Your task to perform on an android device: move an email to a new category in the gmail app Image 0: 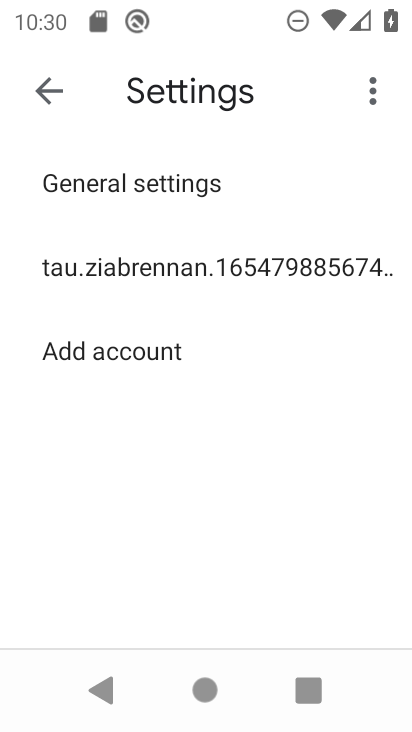
Step 0: press home button
Your task to perform on an android device: move an email to a new category in the gmail app Image 1: 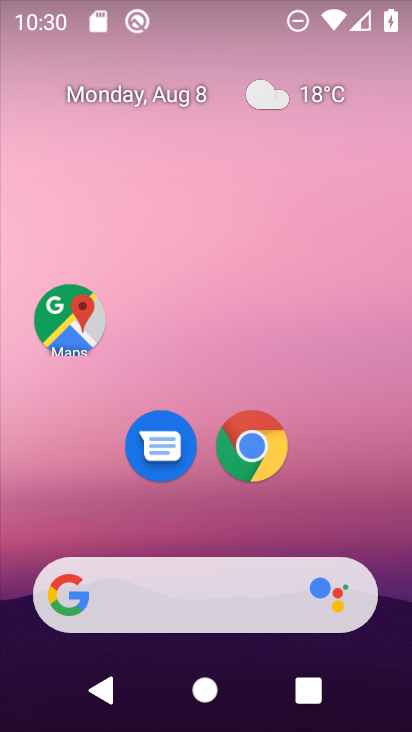
Step 1: drag from (396, 608) to (343, 123)
Your task to perform on an android device: move an email to a new category in the gmail app Image 2: 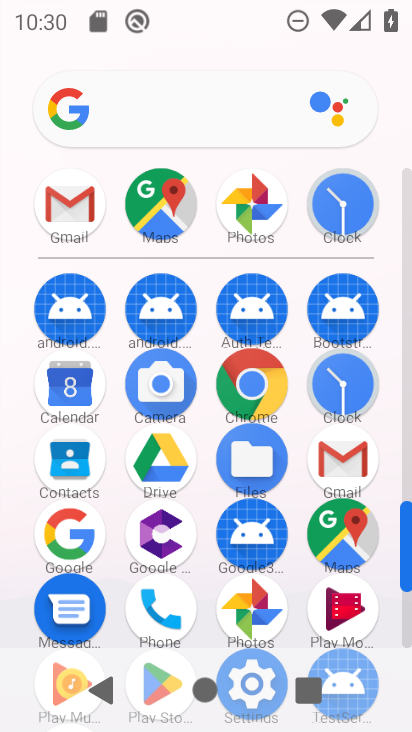
Step 2: click (342, 458)
Your task to perform on an android device: move an email to a new category in the gmail app Image 3: 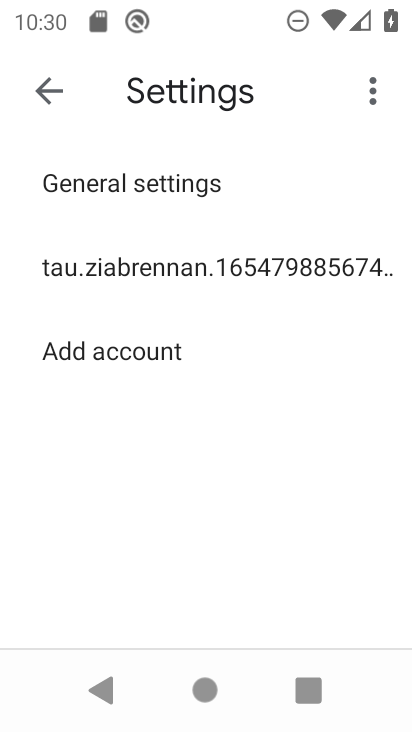
Step 3: press back button
Your task to perform on an android device: move an email to a new category in the gmail app Image 4: 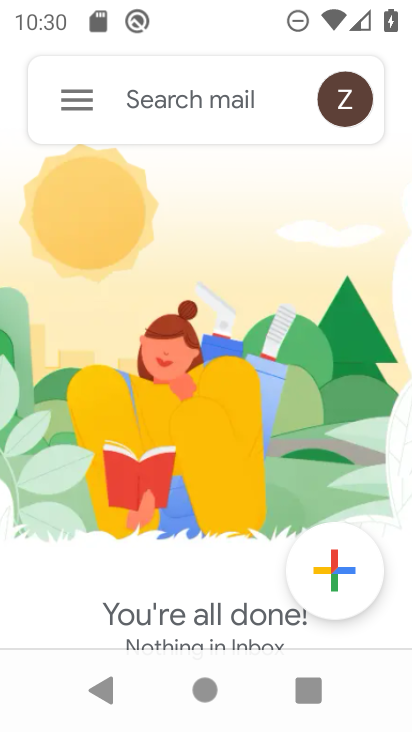
Step 4: click (69, 101)
Your task to perform on an android device: move an email to a new category in the gmail app Image 5: 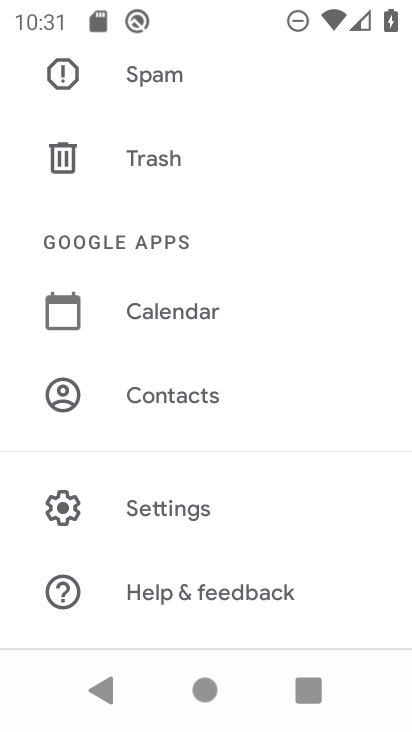
Step 5: drag from (244, 166) to (251, 346)
Your task to perform on an android device: move an email to a new category in the gmail app Image 6: 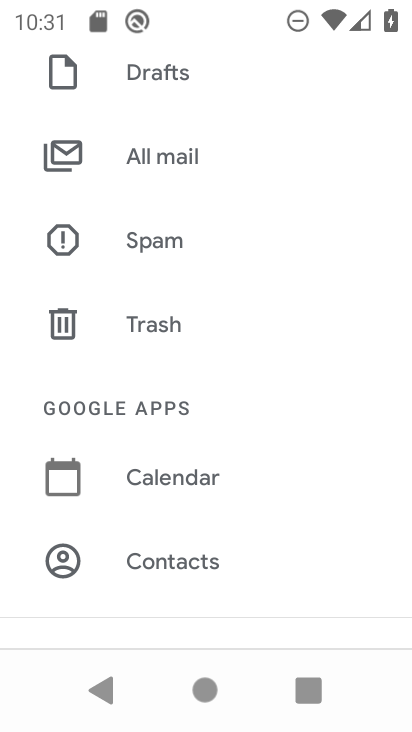
Step 6: click (159, 156)
Your task to perform on an android device: move an email to a new category in the gmail app Image 7: 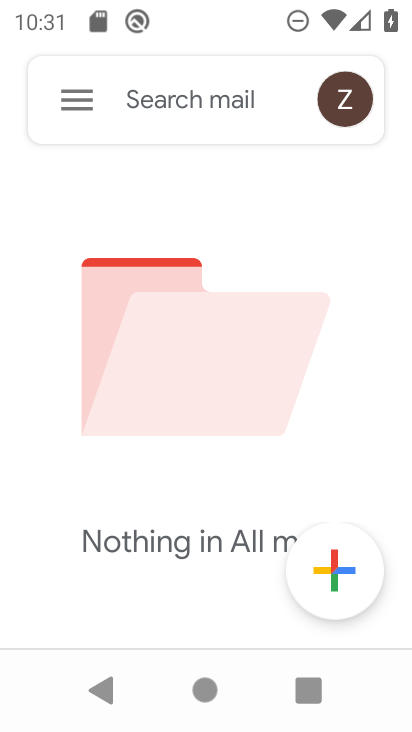
Step 7: task complete